Your task to perform on an android device: open a bookmark in the chrome app Image 0: 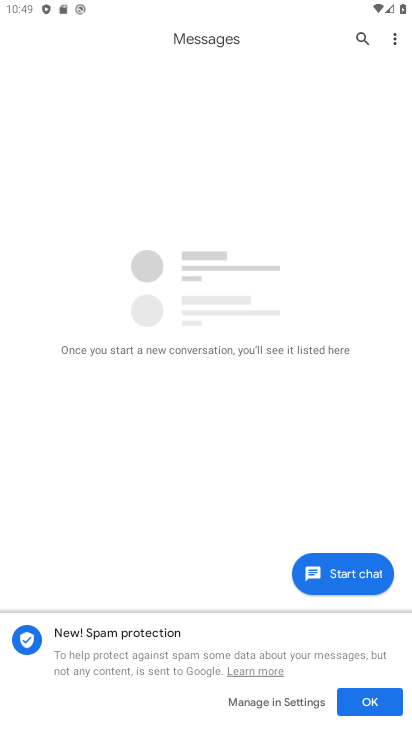
Step 0: press home button
Your task to perform on an android device: open a bookmark in the chrome app Image 1: 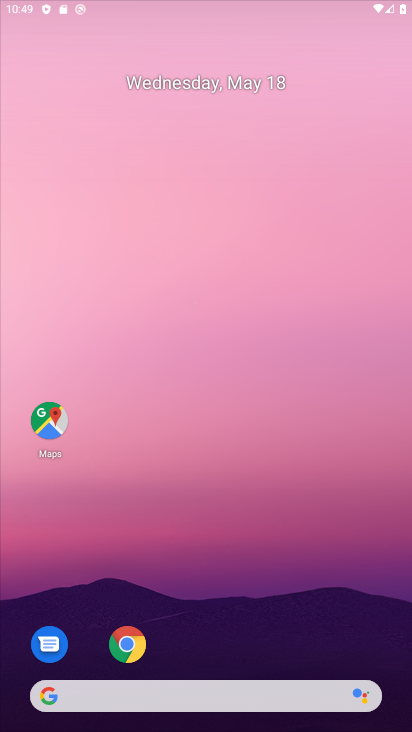
Step 1: drag from (374, 597) to (307, 108)
Your task to perform on an android device: open a bookmark in the chrome app Image 2: 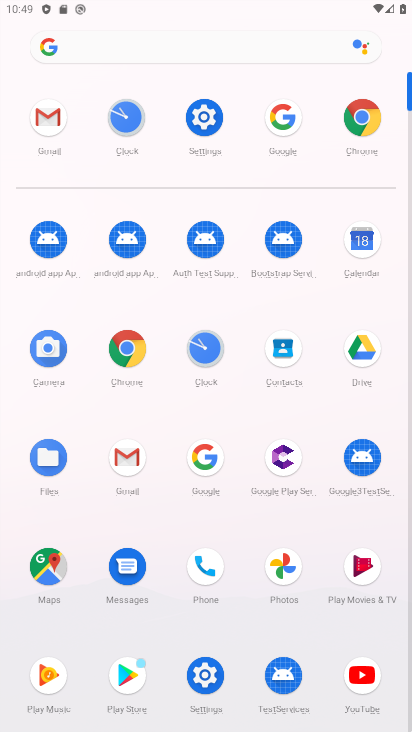
Step 2: click (112, 362)
Your task to perform on an android device: open a bookmark in the chrome app Image 3: 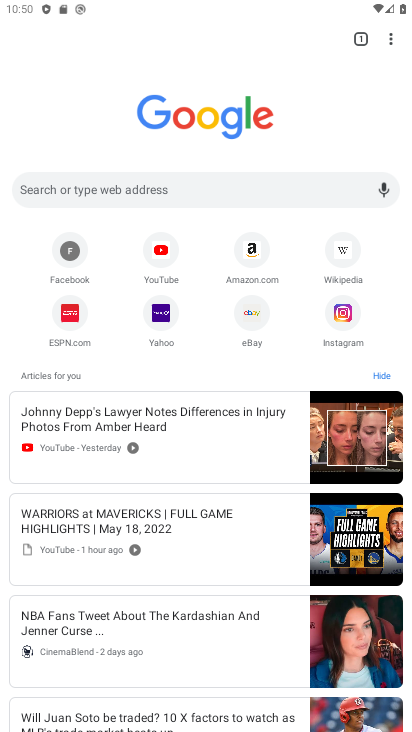
Step 3: click (390, 41)
Your task to perform on an android device: open a bookmark in the chrome app Image 4: 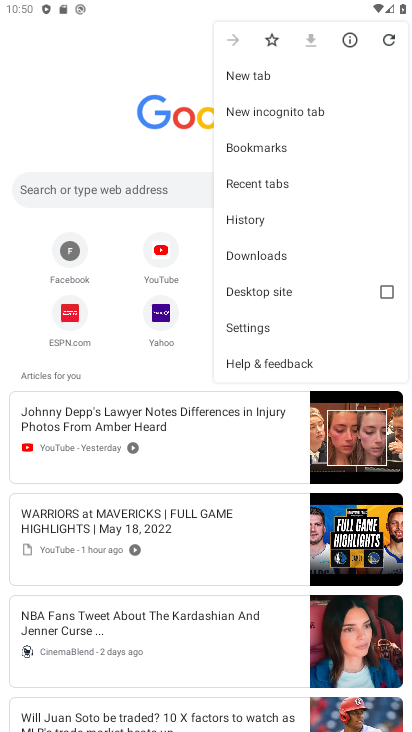
Step 4: click (270, 145)
Your task to perform on an android device: open a bookmark in the chrome app Image 5: 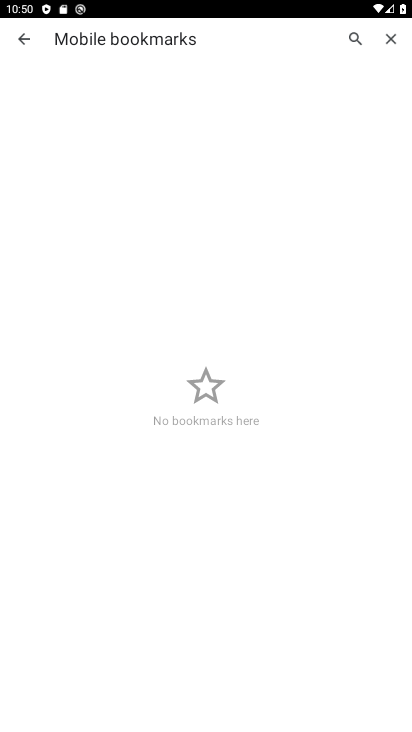
Step 5: task complete